Your task to perform on an android device: What's the weather going to be tomorrow? Image 0: 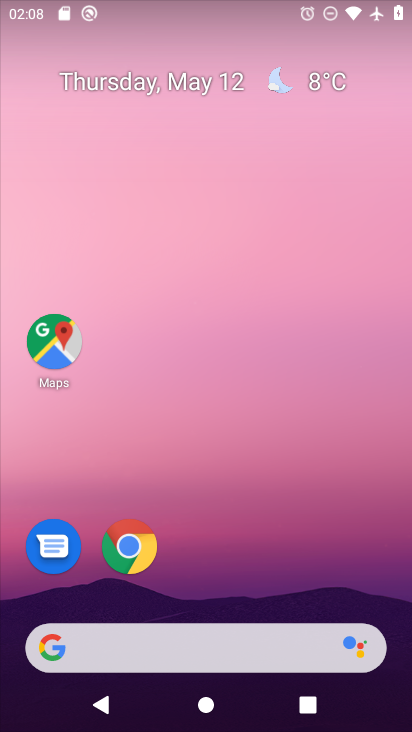
Step 0: press home button
Your task to perform on an android device: What's the weather going to be tomorrow? Image 1: 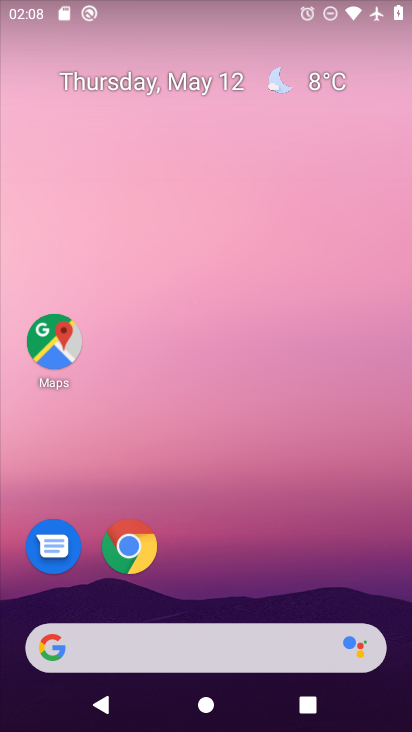
Step 1: click (332, 81)
Your task to perform on an android device: What's the weather going to be tomorrow? Image 2: 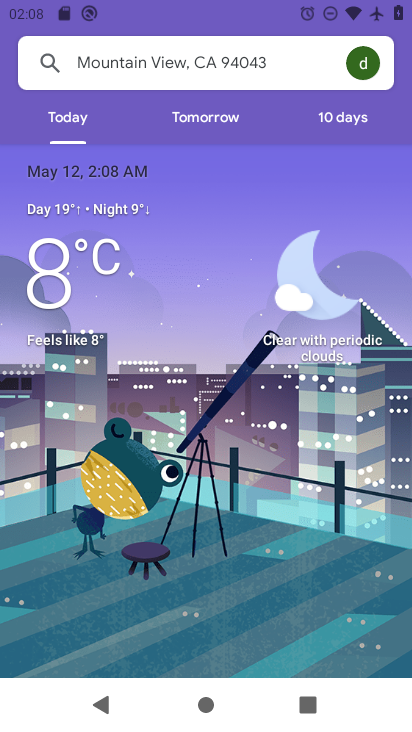
Step 2: click (208, 115)
Your task to perform on an android device: What's the weather going to be tomorrow? Image 3: 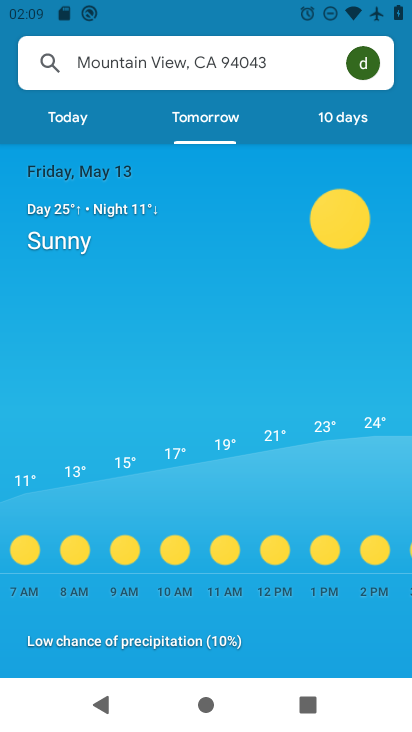
Step 3: task complete